Your task to perform on an android device: find photos in the google photos app Image 0: 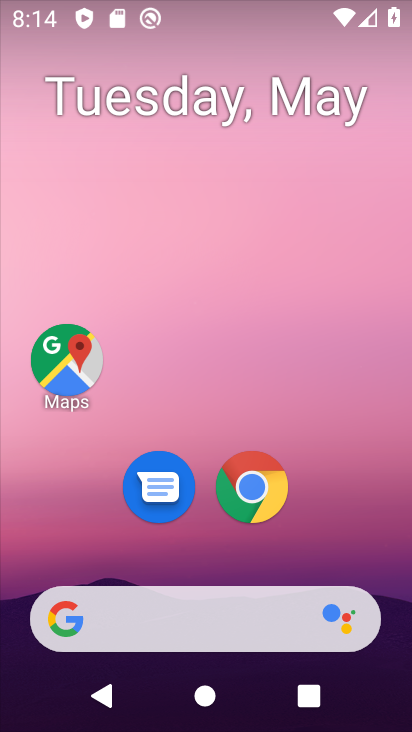
Step 0: drag from (345, 538) to (368, 82)
Your task to perform on an android device: find photos in the google photos app Image 1: 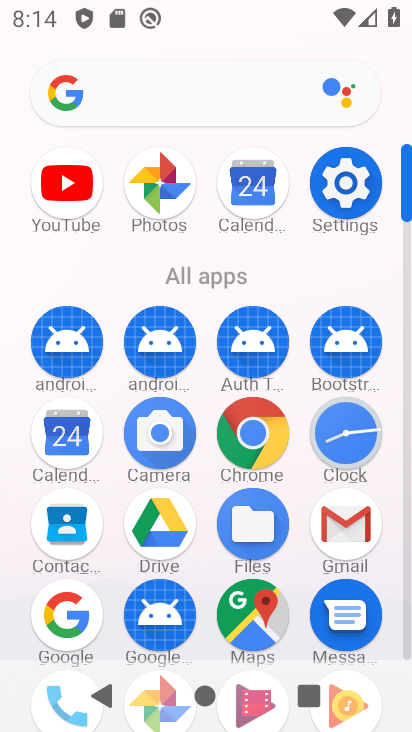
Step 1: click (156, 180)
Your task to perform on an android device: find photos in the google photos app Image 2: 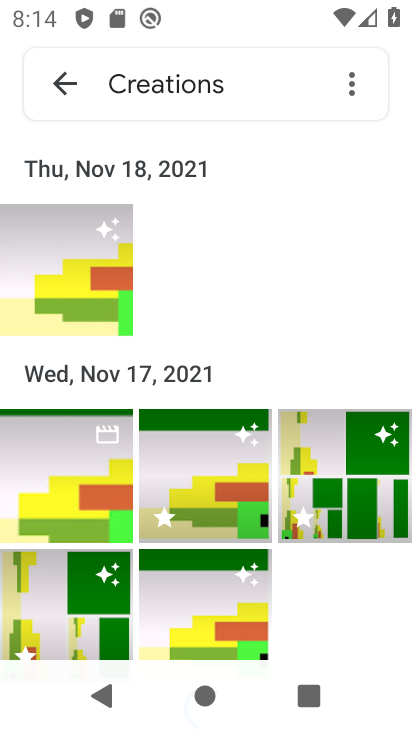
Step 2: click (76, 88)
Your task to perform on an android device: find photos in the google photos app Image 3: 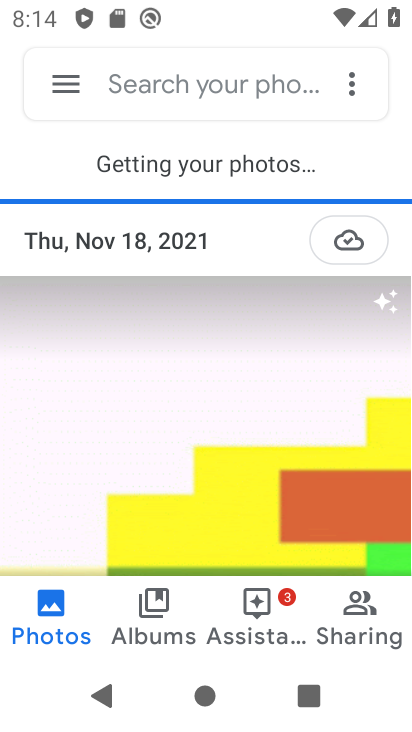
Step 3: click (54, 617)
Your task to perform on an android device: find photos in the google photos app Image 4: 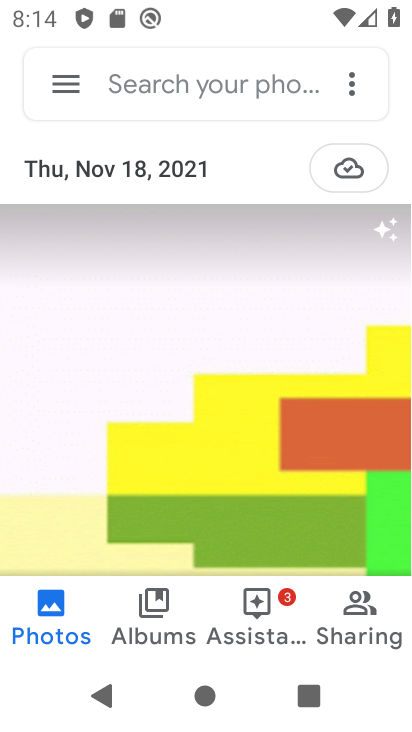
Step 4: task complete